Your task to perform on an android device: set default search engine in the chrome app Image 0: 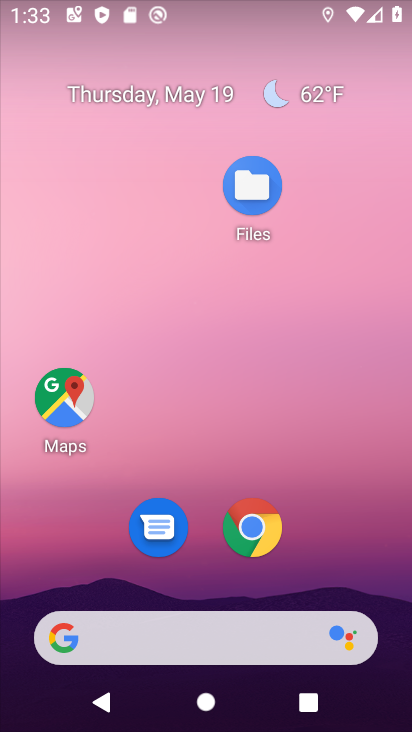
Step 0: drag from (378, 509) to (370, 81)
Your task to perform on an android device: set default search engine in the chrome app Image 1: 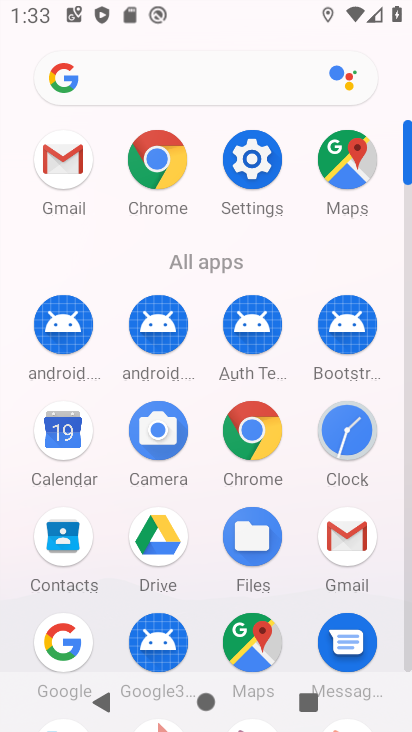
Step 1: click (239, 469)
Your task to perform on an android device: set default search engine in the chrome app Image 2: 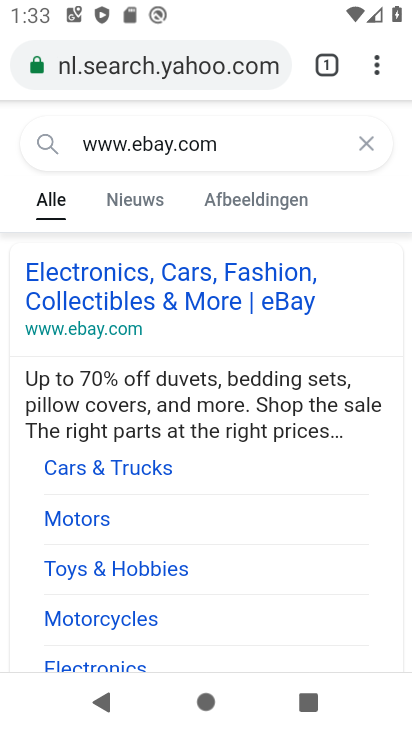
Step 2: drag from (382, 75) to (259, 576)
Your task to perform on an android device: set default search engine in the chrome app Image 3: 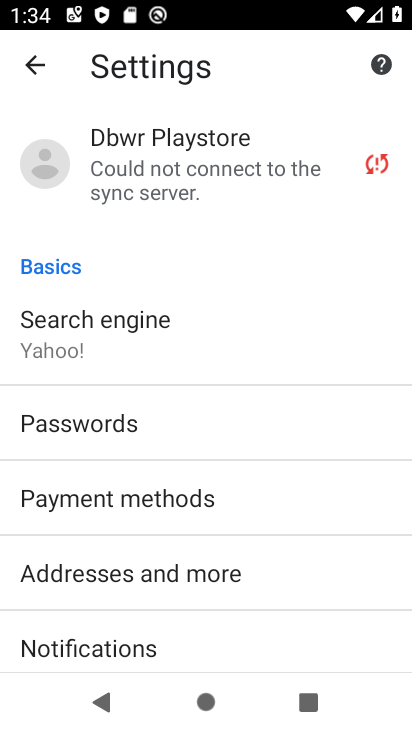
Step 3: click (150, 330)
Your task to perform on an android device: set default search engine in the chrome app Image 4: 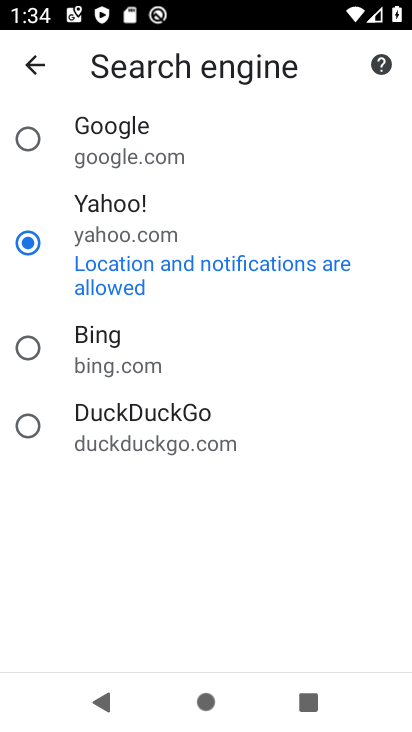
Step 4: click (120, 152)
Your task to perform on an android device: set default search engine in the chrome app Image 5: 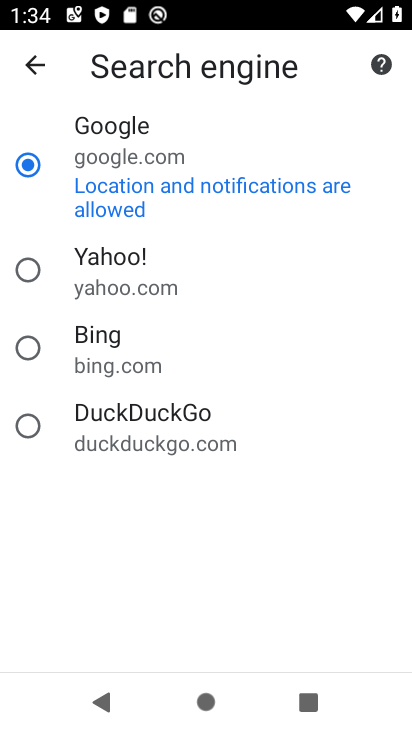
Step 5: task complete